Your task to perform on an android device: Search for seafood restaurants on Google Maps Image 0: 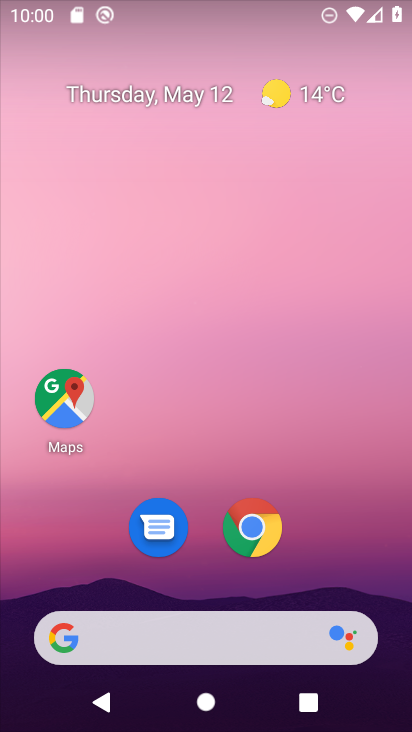
Step 0: click (59, 403)
Your task to perform on an android device: Search for seafood restaurants on Google Maps Image 1: 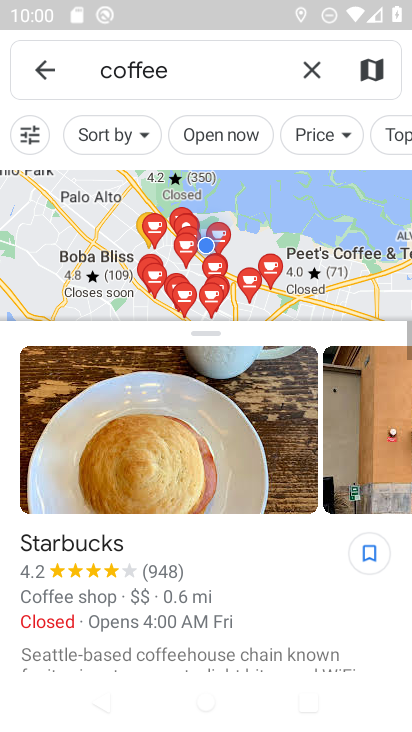
Step 1: click (309, 72)
Your task to perform on an android device: Search for seafood restaurants on Google Maps Image 2: 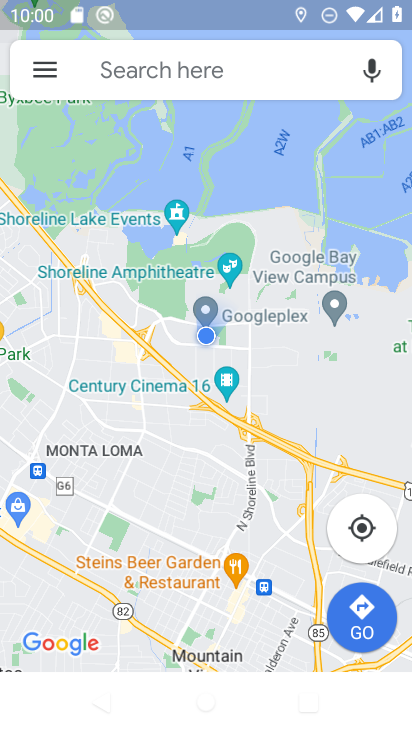
Step 2: type "seafood"
Your task to perform on an android device: Search for seafood restaurants on Google Maps Image 3: 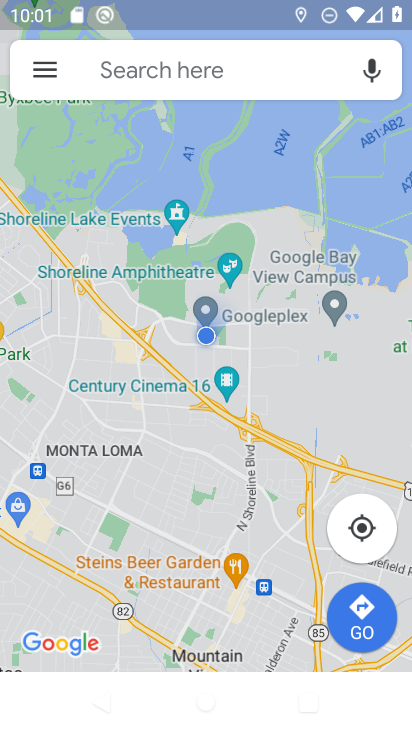
Step 3: click (222, 56)
Your task to perform on an android device: Search for seafood restaurants on Google Maps Image 4: 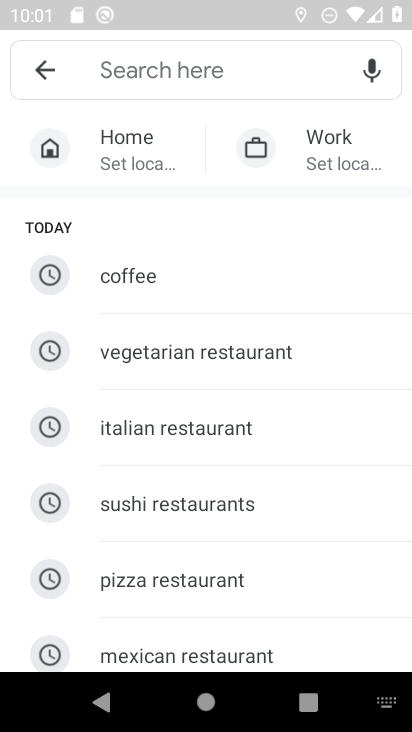
Step 4: type "seafood"
Your task to perform on an android device: Search for seafood restaurants on Google Maps Image 5: 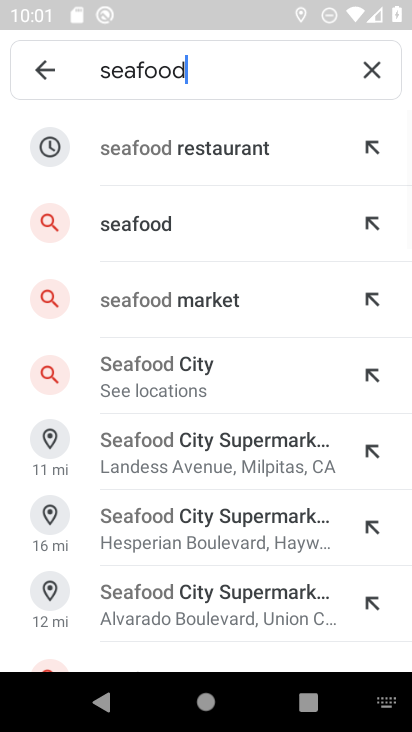
Step 5: click (182, 150)
Your task to perform on an android device: Search for seafood restaurants on Google Maps Image 6: 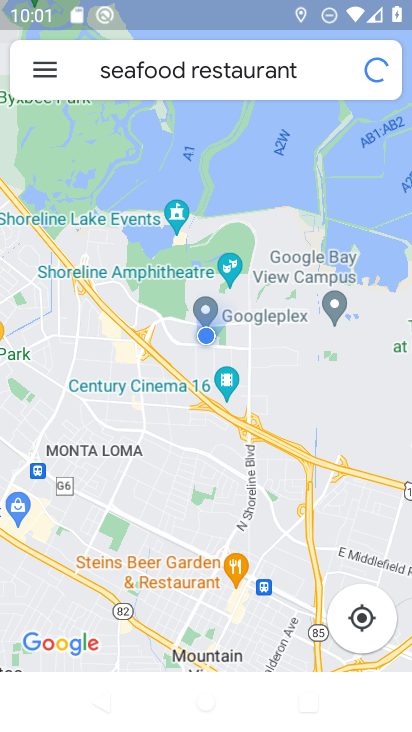
Step 6: task complete